Your task to perform on an android device: Open settings on Google Maps Image 0: 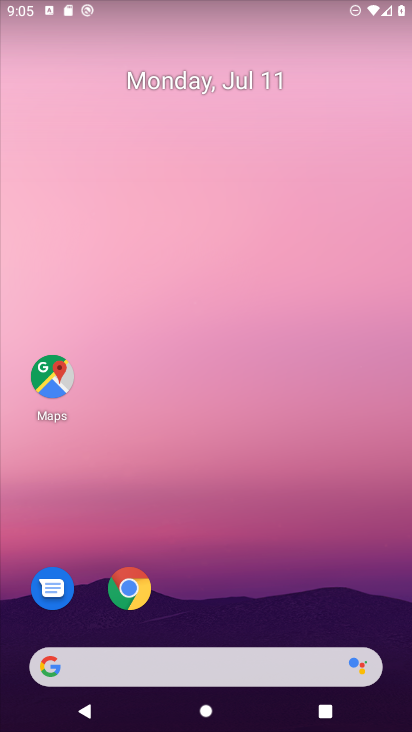
Step 0: drag from (356, 620) to (267, 68)
Your task to perform on an android device: Open settings on Google Maps Image 1: 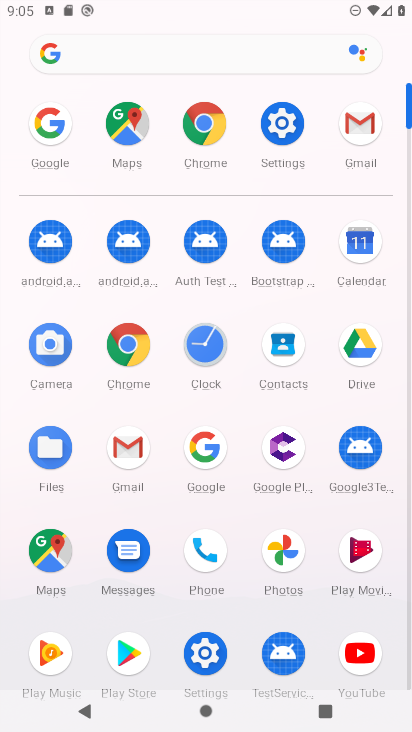
Step 1: click (44, 563)
Your task to perform on an android device: Open settings on Google Maps Image 2: 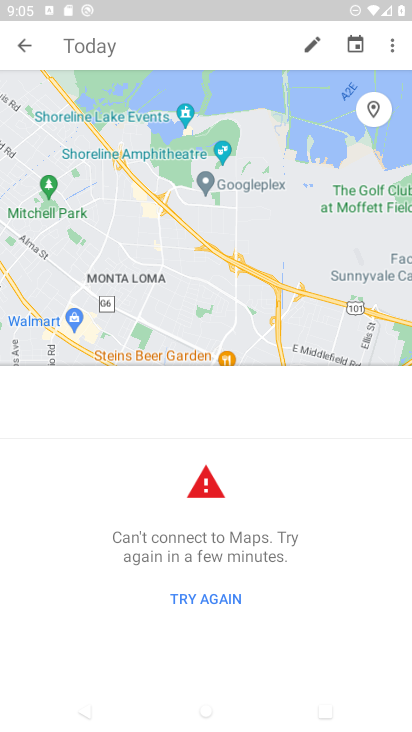
Step 2: click (17, 44)
Your task to perform on an android device: Open settings on Google Maps Image 3: 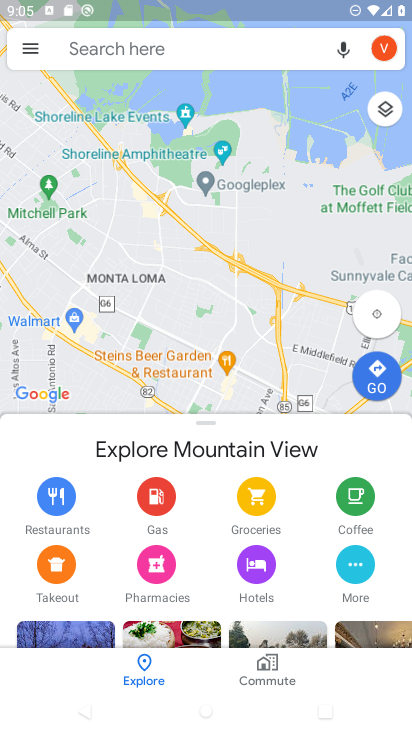
Step 3: click (28, 47)
Your task to perform on an android device: Open settings on Google Maps Image 4: 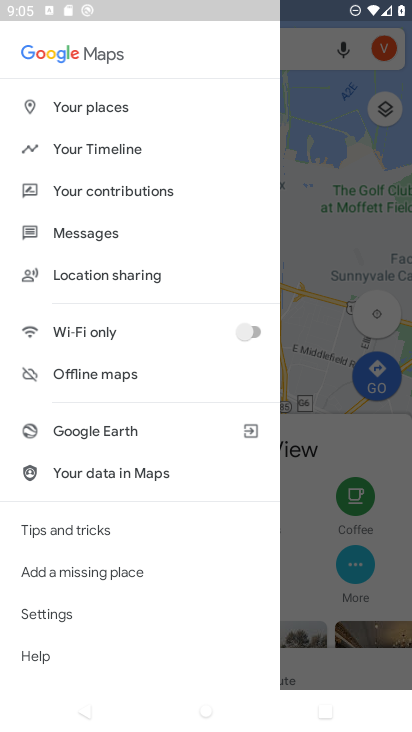
Step 4: click (76, 610)
Your task to perform on an android device: Open settings on Google Maps Image 5: 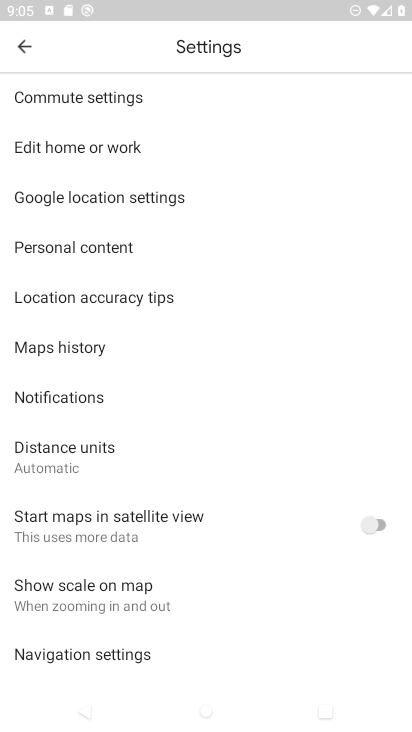
Step 5: task complete